Your task to perform on an android device: add a contact Image 0: 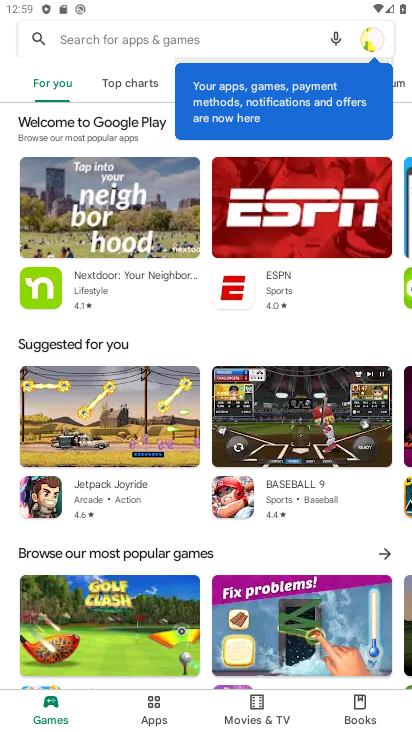
Step 0: press home button
Your task to perform on an android device: add a contact Image 1: 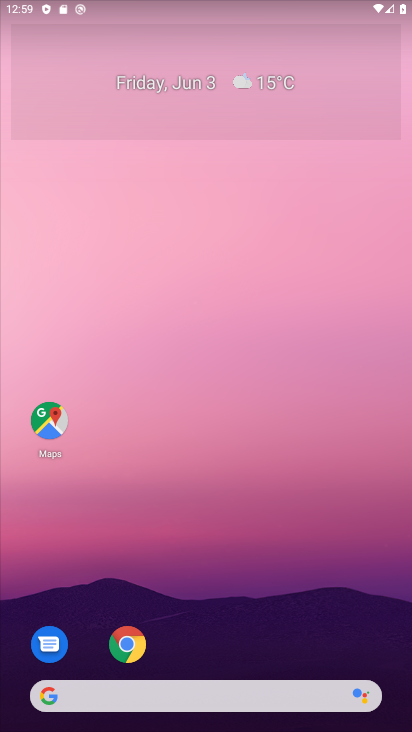
Step 1: drag from (169, 458) to (195, 151)
Your task to perform on an android device: add a contact Image 2: 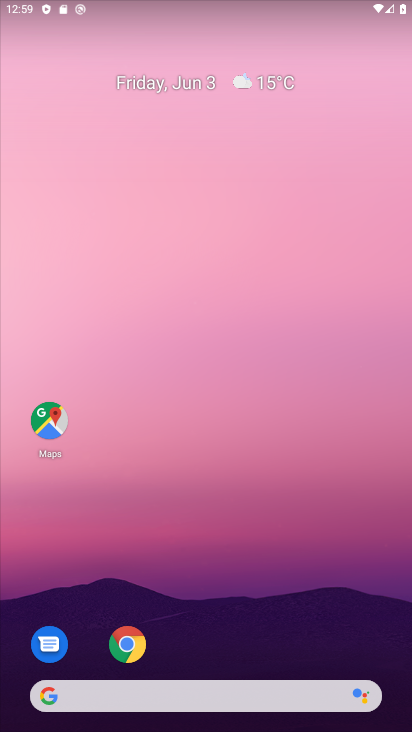
Step 2: drag from (209, 662) to (315, 20)
Your task to perform on an android device: add a contact Image 3: 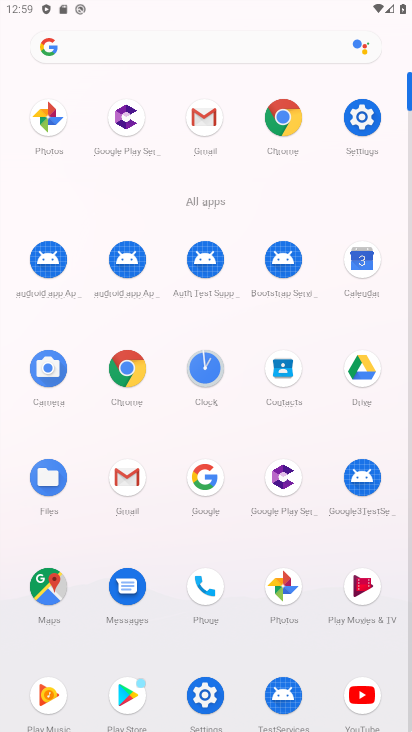
Step 3: click (285, 377)
Your task to perform on an android device: add a contact Image 4: 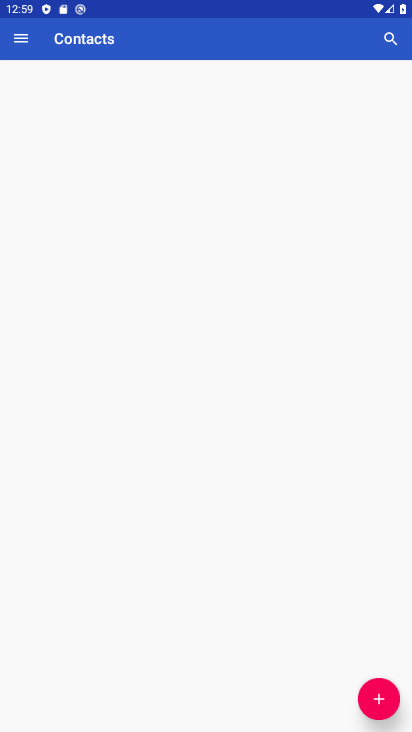
Step 4: click (389, 698)
Your task to perform on an android device: add a contact Image 5: 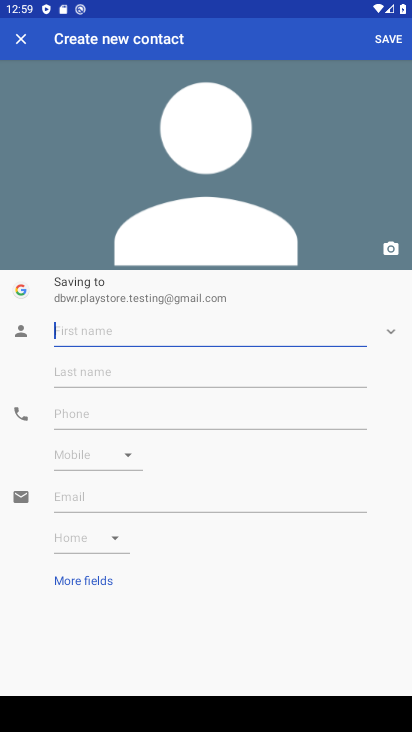
Step 5: type "conta"
Your task to perform on an android device: add a contact Image 6: 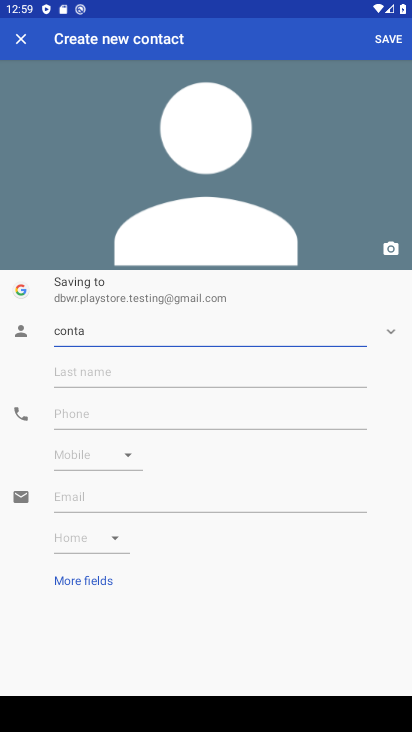
Step 6: click (383, 38)
Your task to perform on an android device: add a contact Image 7: 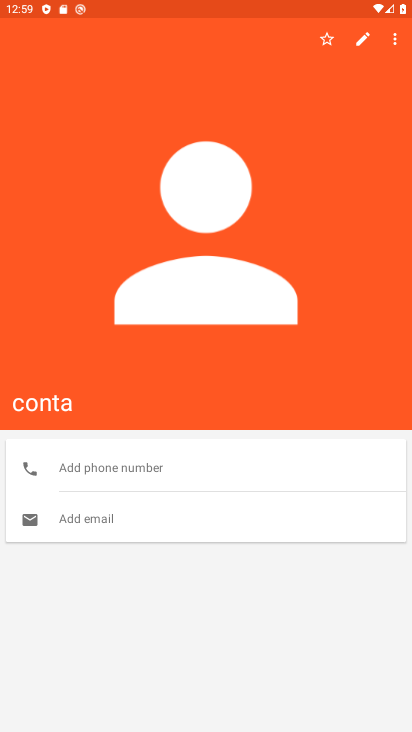
Step 7: task complete